Your task to perform on an android device: Search for beats solo 3 on bestbuy, select the first entry, and add it to the cart. Image 0: 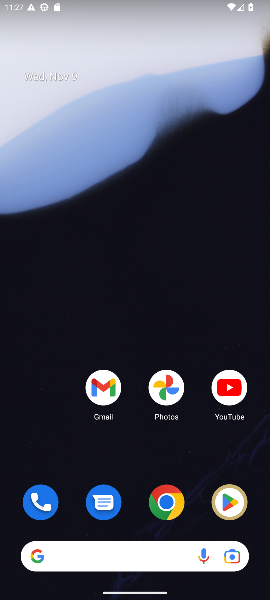
Step 0: drag from (131, 487) to (165, 51)
Your task to perform on an android device: Search for beats solo 3 on bestbuy, select the first entry, and add it to the cart. Image 1: 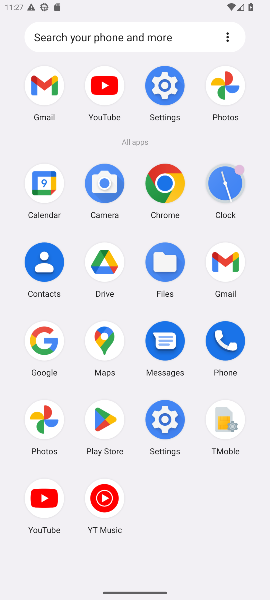
Step 1: click (168, 184)
Your task to perform on an android device: Search for beats solo 3 on bestbuy, select the first entry, and add it to the cart. Image 2: 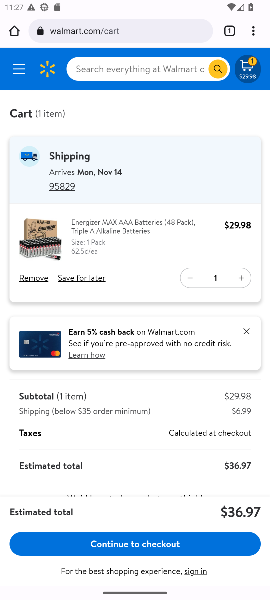
Step 2: click (135, 24)
Your task to perform on an android device: Search for beats solo 3 on bestbuy, select the first entry, and add it to the cart. Image 3: 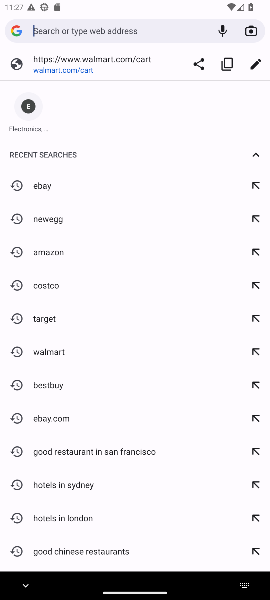
Step 3: type "bestbuy.com"
Your task to perform on an android device: Search for beats solo 3 on bestbuy, select the first entry, and add it to the cart. Image 4: 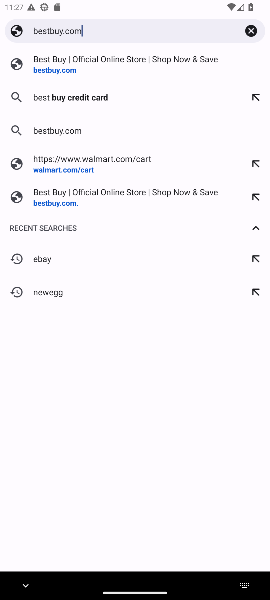
Step 4: press enter
Your task to perform on an android device: Search for beats solo 3 on bestbuy, select the first entry, and add it to the cart. Image 5: 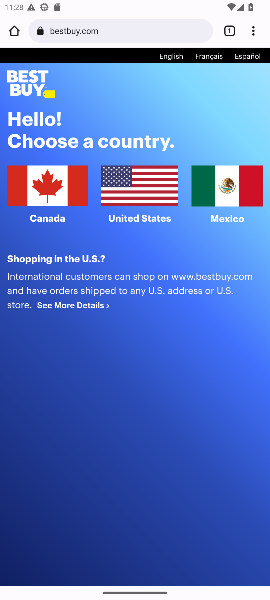
Step 5: click (34, 206)
Your task to perform on an android device: Search for beats solo 3 on bestbuy, select the first entry, and add it to the cart. Image 6: 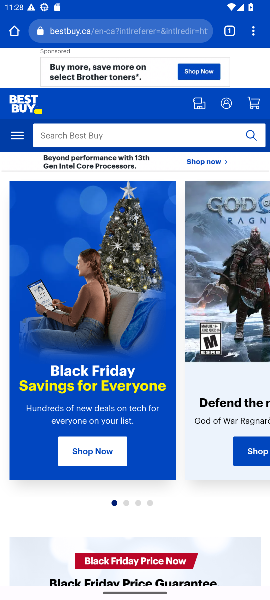
Step 6: click (137, 139)
Your task to perform on an android device: Search for beats solo 3 on bestbuy, select the first entry, and add it to the cart. Image 7: 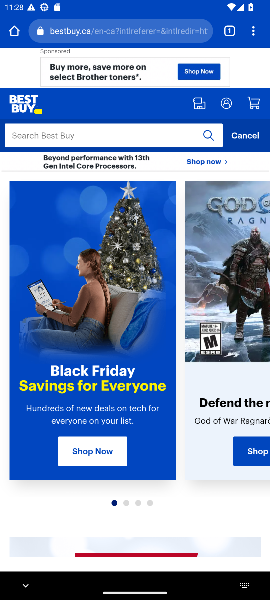
Step 7: type "bests solo 3"
Your task to perform on an android device: Search for beats solo 3 on bestbuy, select the first entry, and add it to the cart. Image 8: 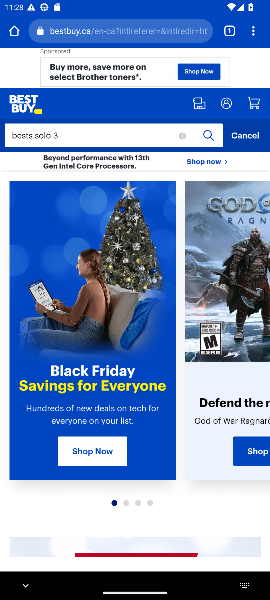
Step 8: press enter
Your task to perform on an android device: Search for beats solo 3 on bestbuy, select the first entry, and add it to the cart. Image 9: 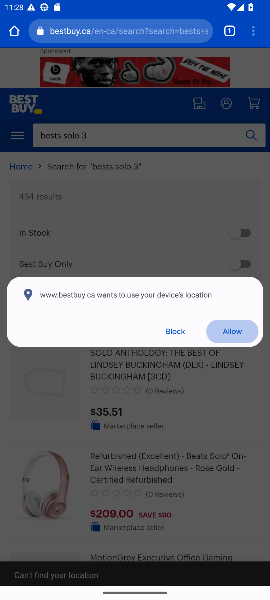
Step 9: click (176, 328)
Your task to perform on an android device: Search for beats solo 3 on bestbuy, select the first entry, and add it to the cart. Image 10: 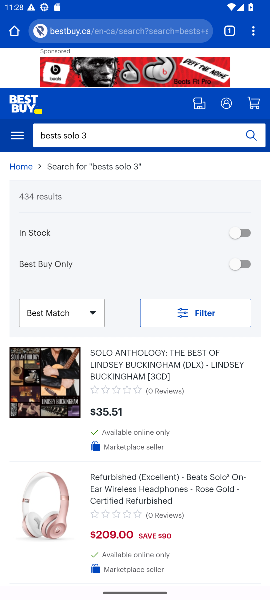
Step 10: drag from (201, 385) to (190, 144)
Your task to perform on an android device: Search for beats solo 3 on bestbuy, select the first entry, and add it to the cart. Image 11: 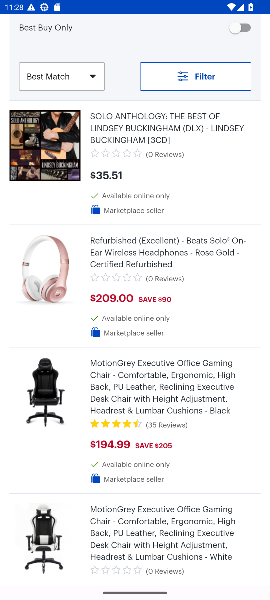
Step 11: drag from (157, 480) to (177, 164)
Your task to perform on an android device: Search for beats solo 3 on bestbuy, select the first entry, and add it to the cart. Image 12: 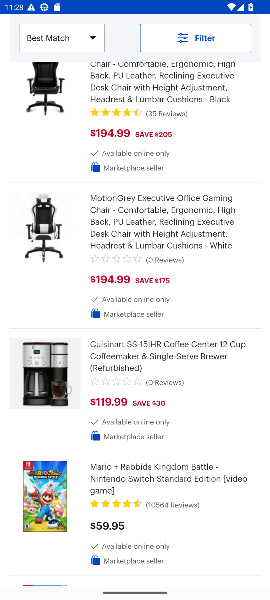
Step 12: drag from (163, 167) to (158, 524)
Your task to perform on an android device: Search for beats solo 3 on bestbuy, select the first entry, and add it to the cart. Image 13: 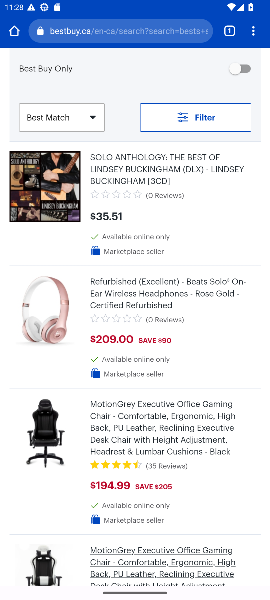
Step 13: drag from (139, 215) to (119, 511)
Your task to perform on an android device: Search for beats solo 3 on bestbuy, select the first entry, and add it to the cart. Image 14: 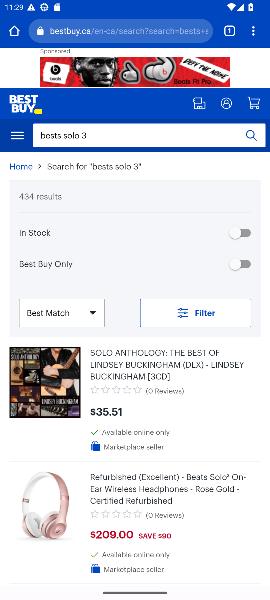
Step 14: drag from (201, 529) to (213, 461)
Your task to perform on an android device: Search for beats solo 3 on bestbuy, select the first entry, and add it to the cart. Image 15: 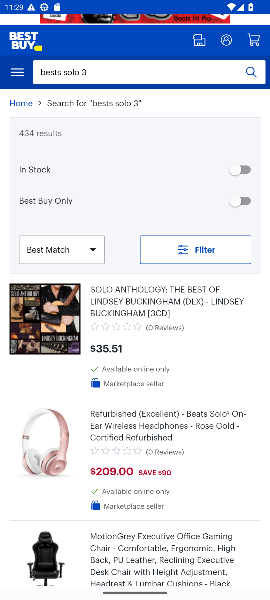
Step 15: click (131, 421)
Your task to perform on an android device: Search for beats solo 3 on bestbuy, select the first entry, and add it to the cart. Image 16: 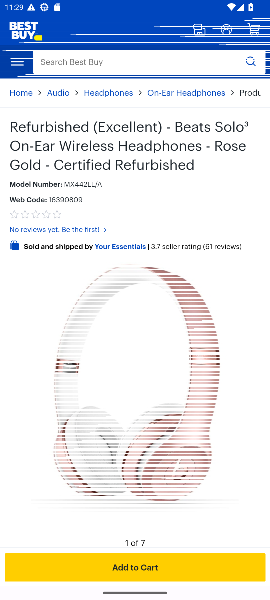
Step 16: click (153, 569)
Your task to perform on an android device: Search for beats solo 3 on bestbuy, select the first entry, and add it to the cart. Image 17: 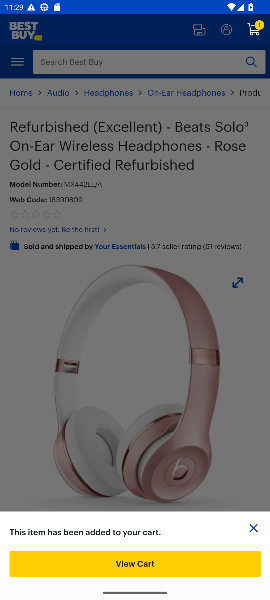
Step 17: task complete